Your task to perform on an android device: Open privacy settings Image 0: 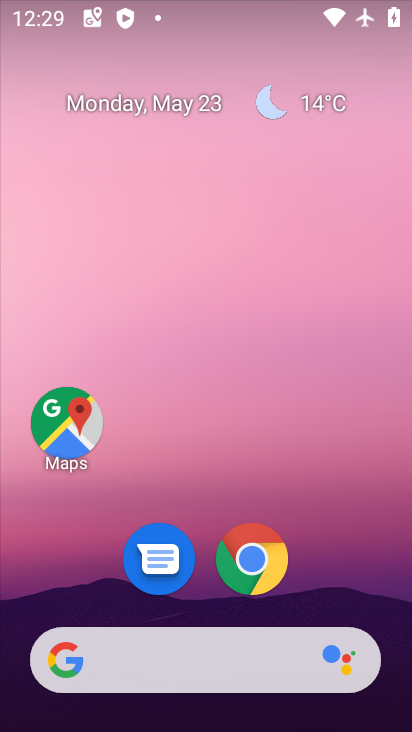
Step 0: drag from (339, 610) to (311, 12)
Your task to perform on an android device: Open privacy settings Image 1: 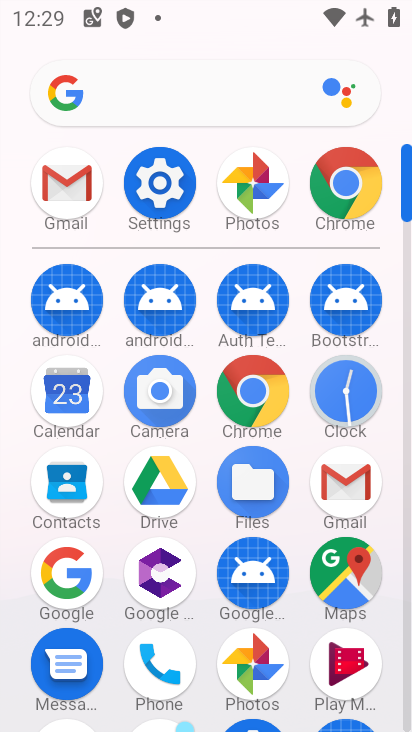
Step 1: click (162, 185)
Your task to perform on an android device: Open privacy settings Image 2: 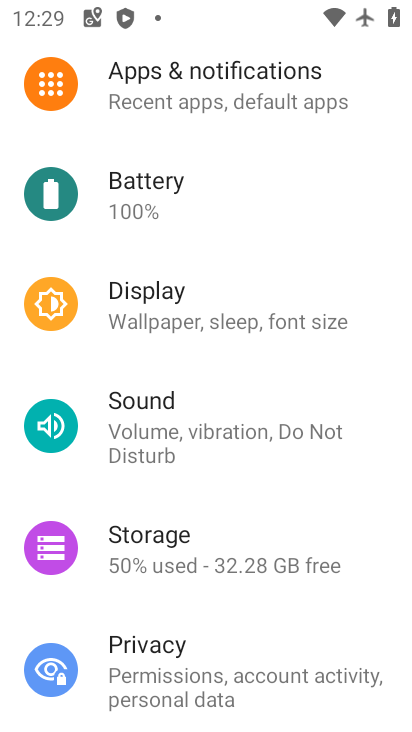
Step 2: click (163, 660)
Your task to perform on an android device: Open privacy settings Image 3: 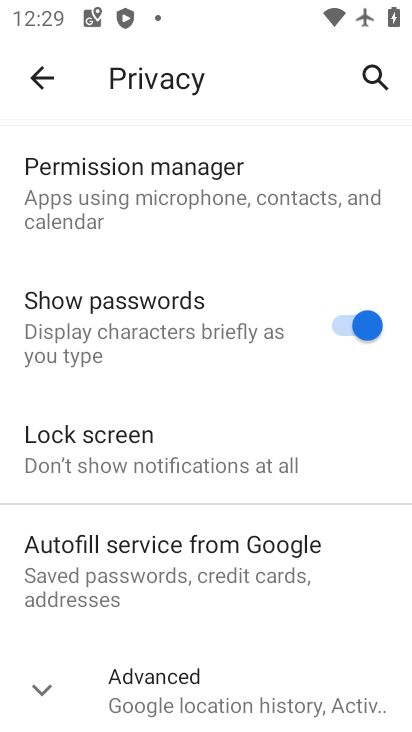
Step 3: task complete